Your task to perform on an android device: Search for razer blackwidow on walmart.com, select the first entry, and add it to the cart. Image 0: 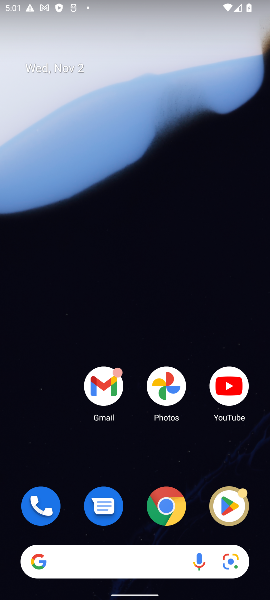
Step 0: click (167, 499)
Your task to perform on an android device: Search for razer blackwidow on walmart.com, select the first entry, and add it to the cart. Image 1: 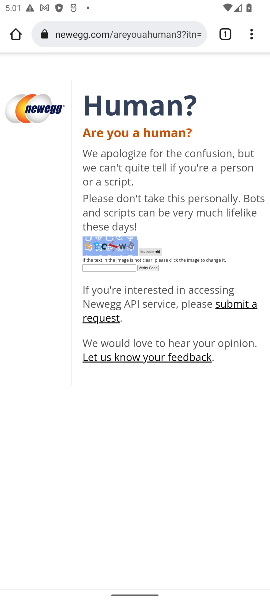
Step 1: click (136, 43)
Your task to perform on an android device: Search for razer blackwidow on walmart.com, select the first entry, and add it to the cart. Image 2: 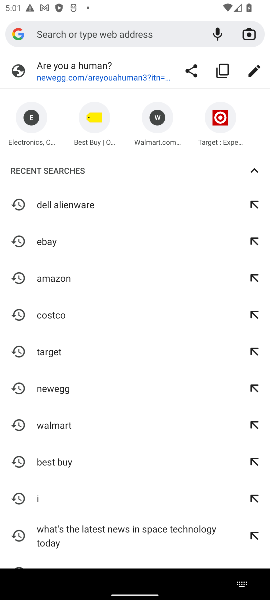
Step 2: click (170, 35)
Your task to perform on an android device: Search for razer blackwidow on walmart.com, select the first entry, and add it to the cart. Image 3: 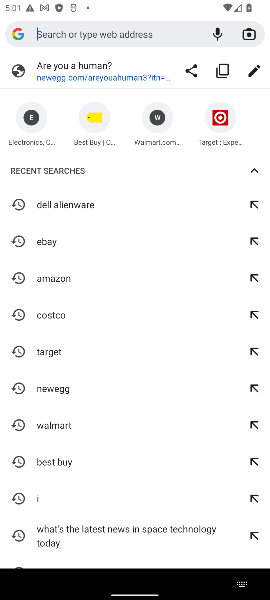
Step 3: type "walmart.com"
Your task to perform on an android device: Search for razer blackwidow on walmart.com, select the first entry, and add it to the cart. Image 4: 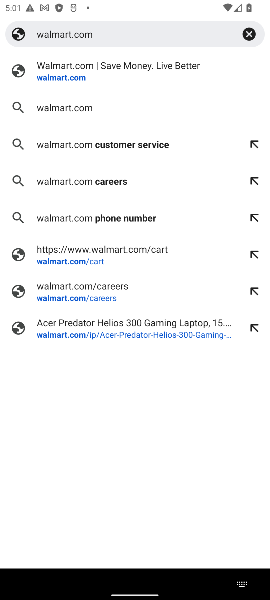
Step 4: click (134, 60)
Your task to perform on an android device: Search for razer blackwidow on walmart.com, select the first entry, and add it to the cart. Image 5: 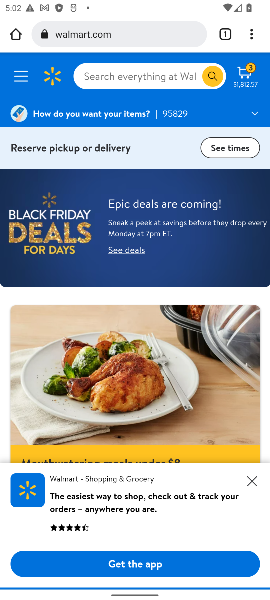
Step 5: click (130, 69)
Your task to perform on an android device: Search for razer blackwidow on walmart.com, select the first entry, and add it to the cart. Image 6: 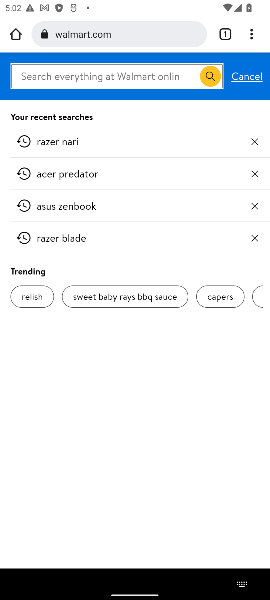
Step 6: type "razer blackwidow"
Your task to perform on an android device: Search for razer blackwidow on walmart.com, select the first entry, and add it to the cart. Image 7: 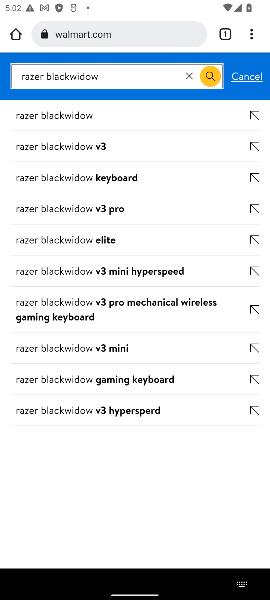
Step 7: click (85, 121)
Your task to perform on an android device: Search for razer blackwidow on walmart.com, select the first entry, and add it to the cart. Image 8: 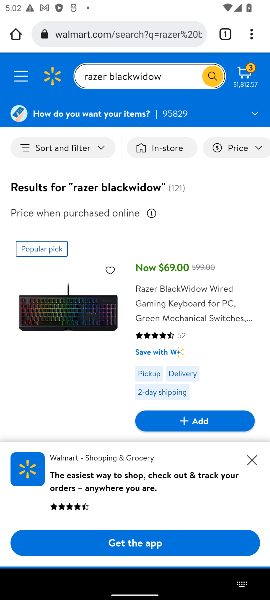
Step 8: click (192, 428)
Your task to perform on an android device: Search for razer blackwidow on walmart.com, select the first entry, and add it to the cart. Image 9: 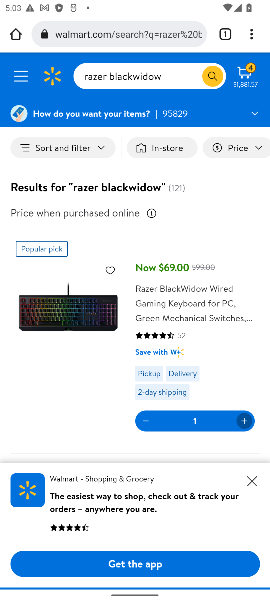
Step 9: task complete